Your task to perform on an android device: Open accessibility settings Image 0: 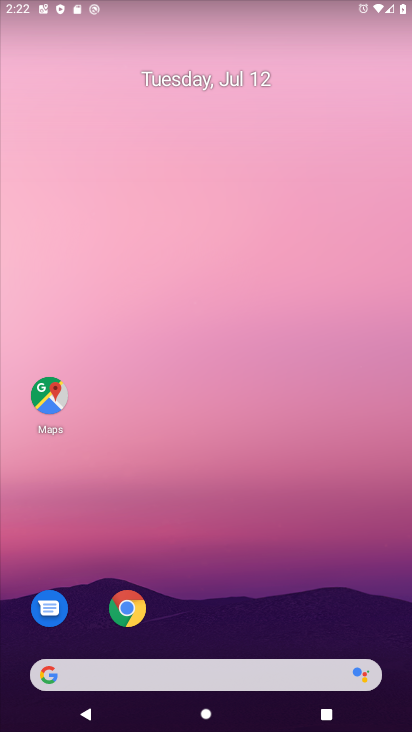
Step 0: drag from (330, 583) to (180, 73)
Your task to perform on an android device: Open accessibility settings Image 1: 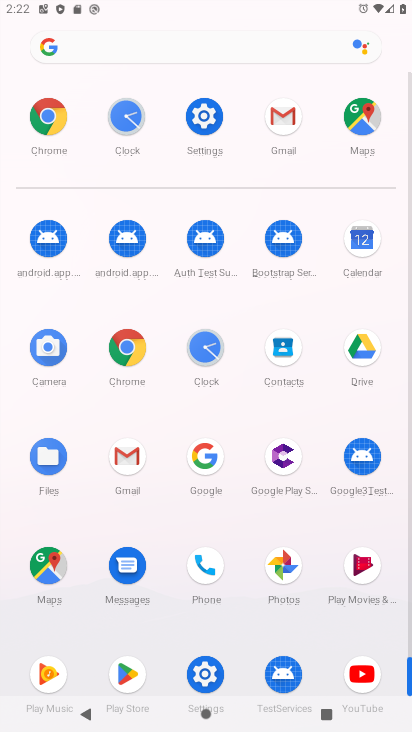
Step 1: click (207, 115)
Your task to perform on an android device: Open accessibility settings Image 2: 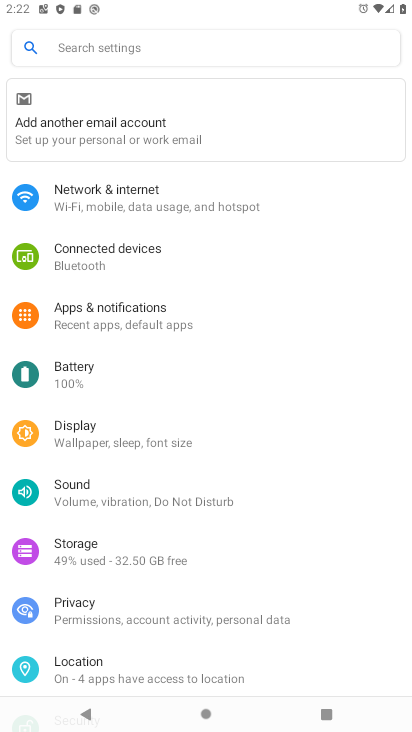
Step 2: drag from (168, 596) to (193, 178)
Your task to perform on an android device: Open accessibility settings Image 3: 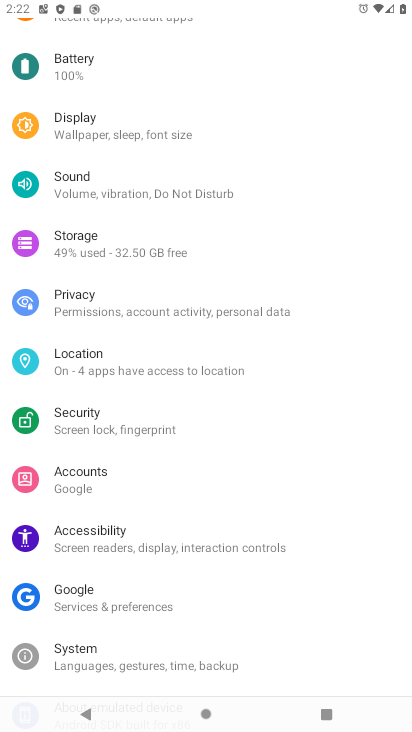
Step 3: click (189, 548)
Your task to perform on an android device: Open accessibility settings Image 4: 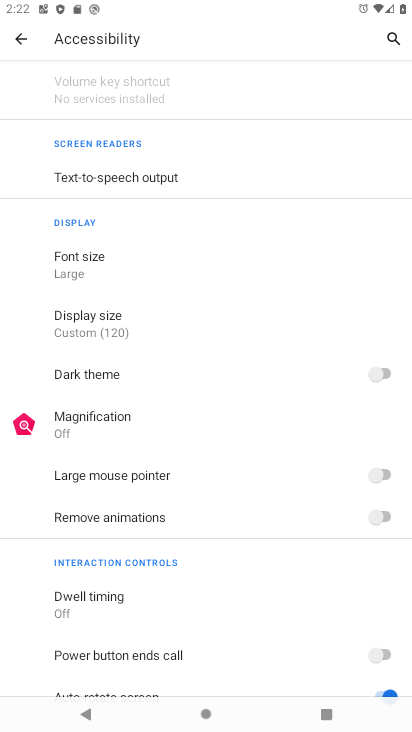
Step 4: task complete